Your task to perform on an android device: Clear all items from cart on walmart.com. Add "energizer triple a" to the cart on walmart.com Image 0: 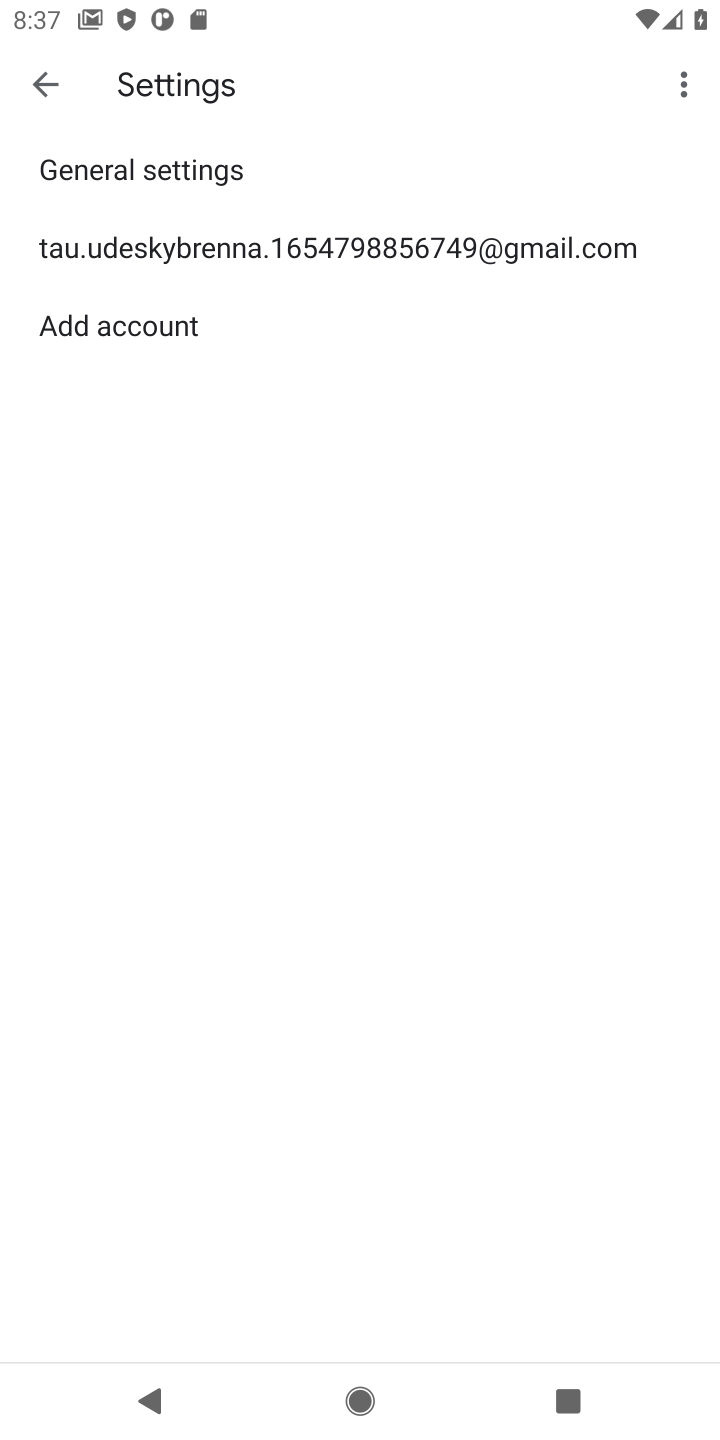
Step 0: press home button
Your task to perform on an android device: Clear all items from cart on walmart.com. Add "energizer triple a" to the cart on walmart.com Image 1: 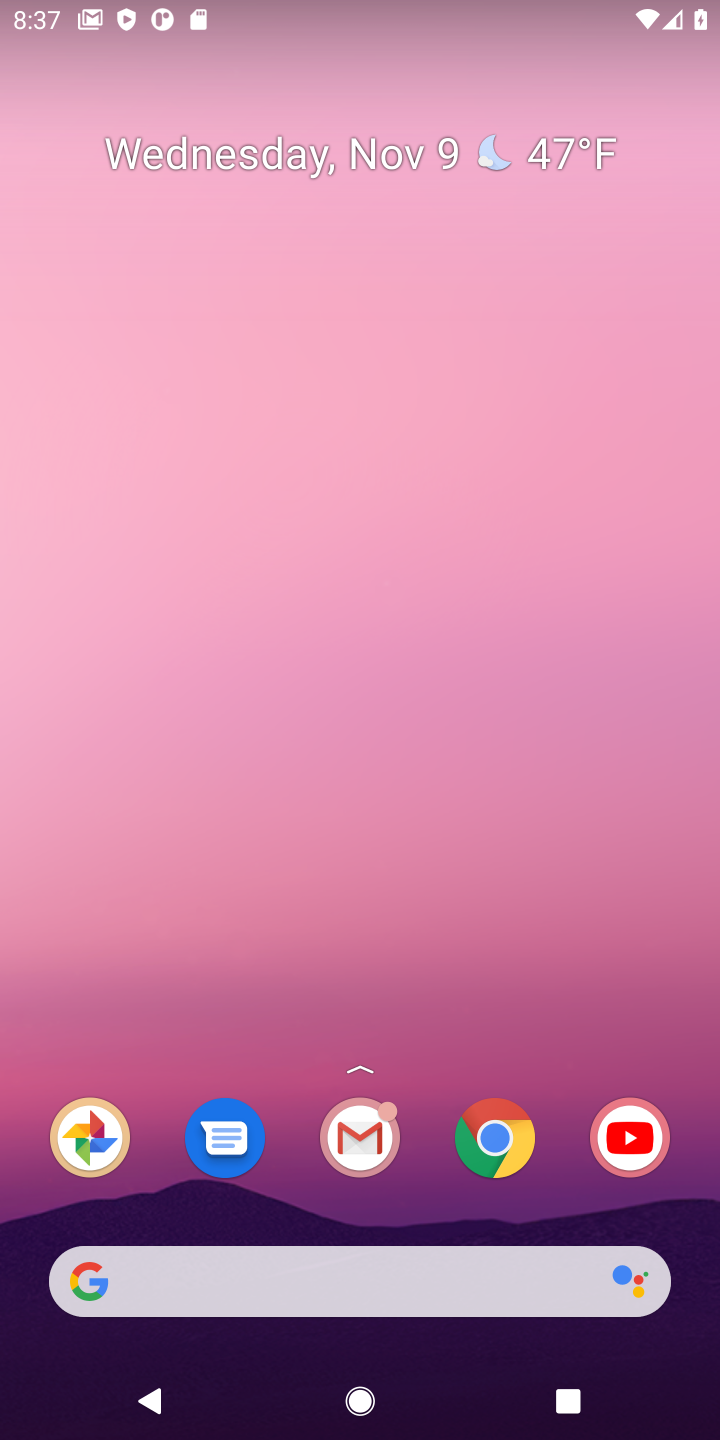
Step 1: drag from (412, 1095) to (407, 50)
Your task to perform on an android device: Clear all items from cart on walmart.com. Add "energizer triple a" to the cart on walmart.com Image 2: 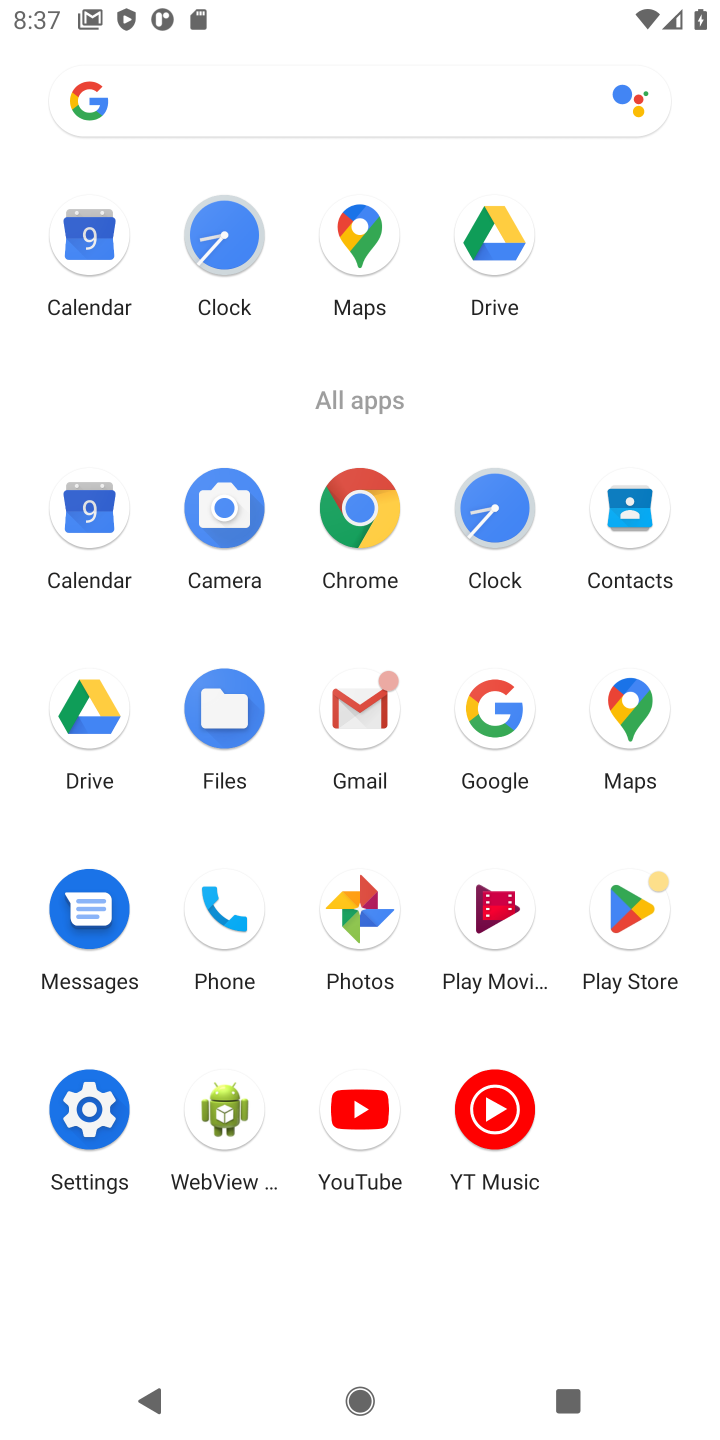
Step 2: click (351, 499)
Your task to perform on an android device: Clear all items from cart on walmart.com. Add "energizer triple a" to the cart on walmart.com Image 3: 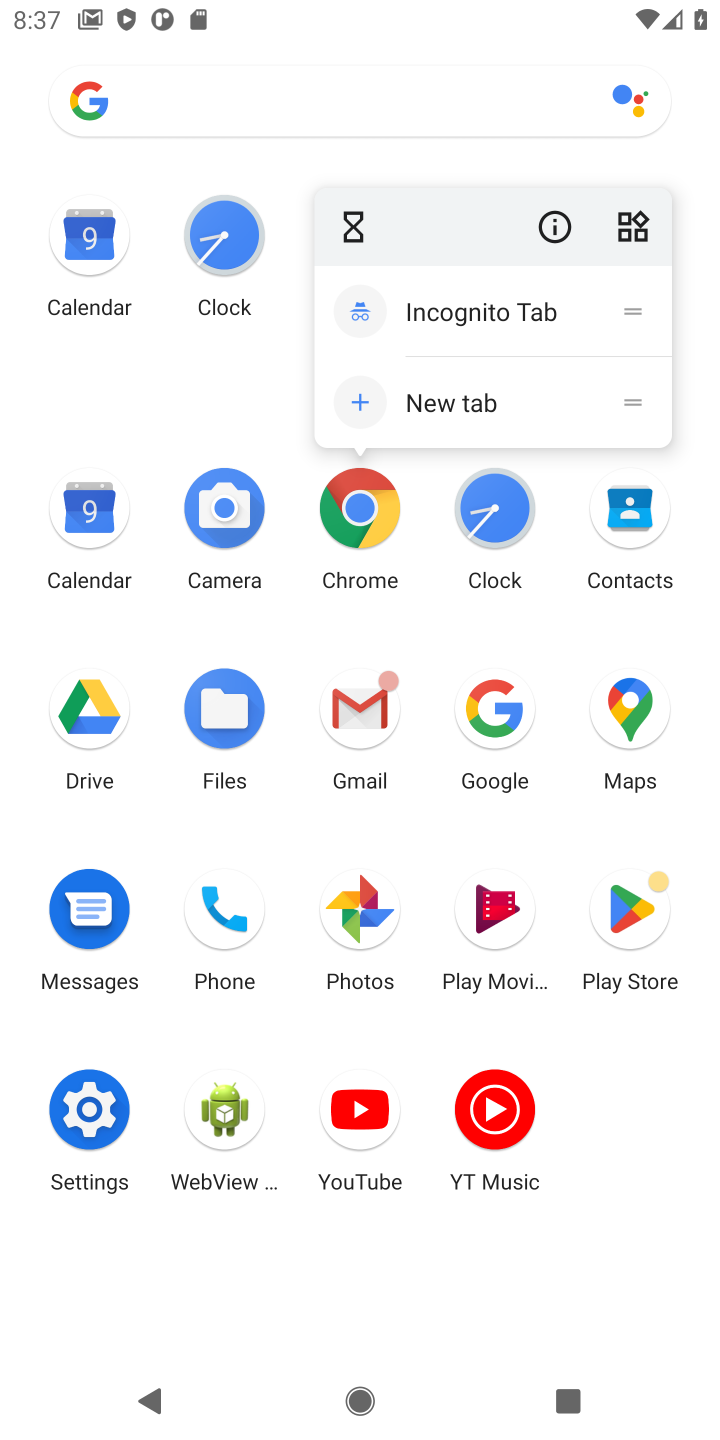
Step 3: click (367, 505)
Your task to perform on an android device: Clear all items from cart on walmart.com. Add "energizer triple a" to the cart on walmart.com Image 4: 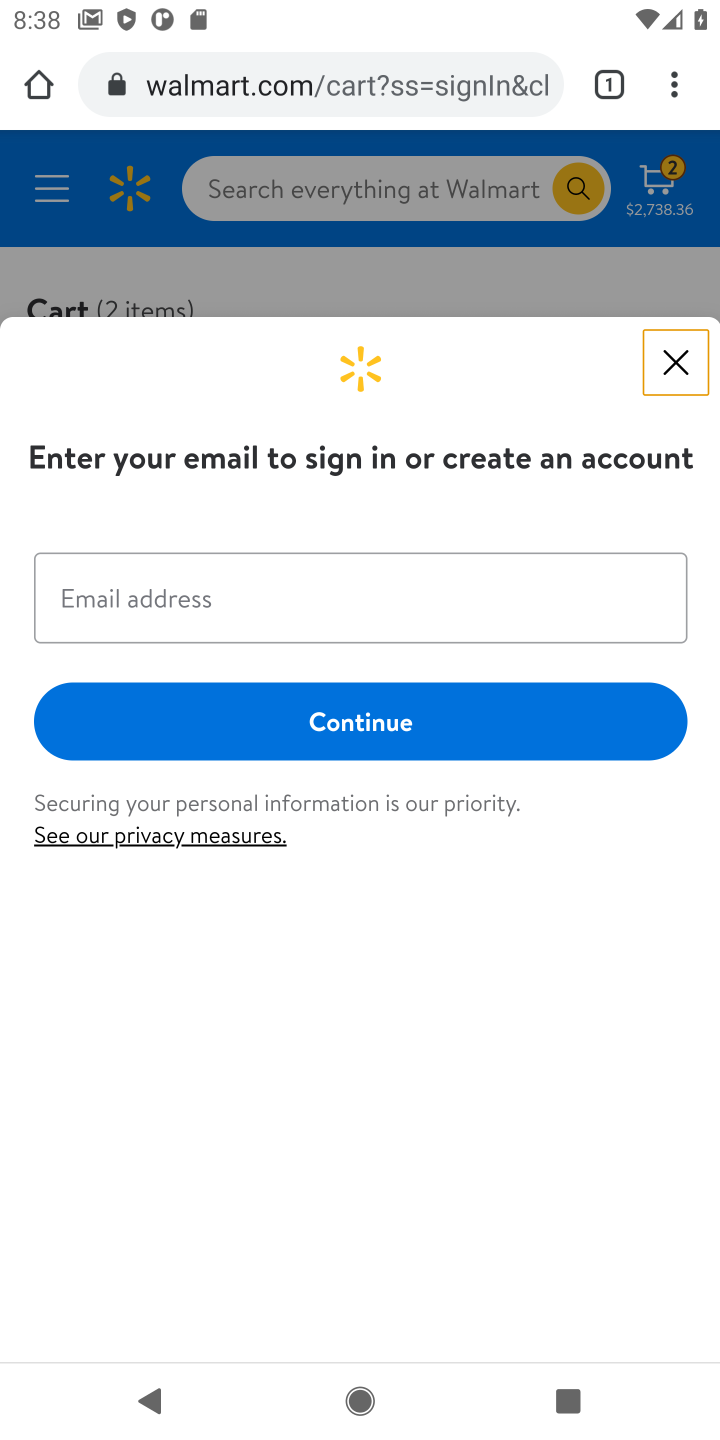
Step 4: click (284, 88)
Your task to perform on an android device: Clear all items from cart on walmart.com. Add "energizer triple a" to the cart on walmart.com Image 5: 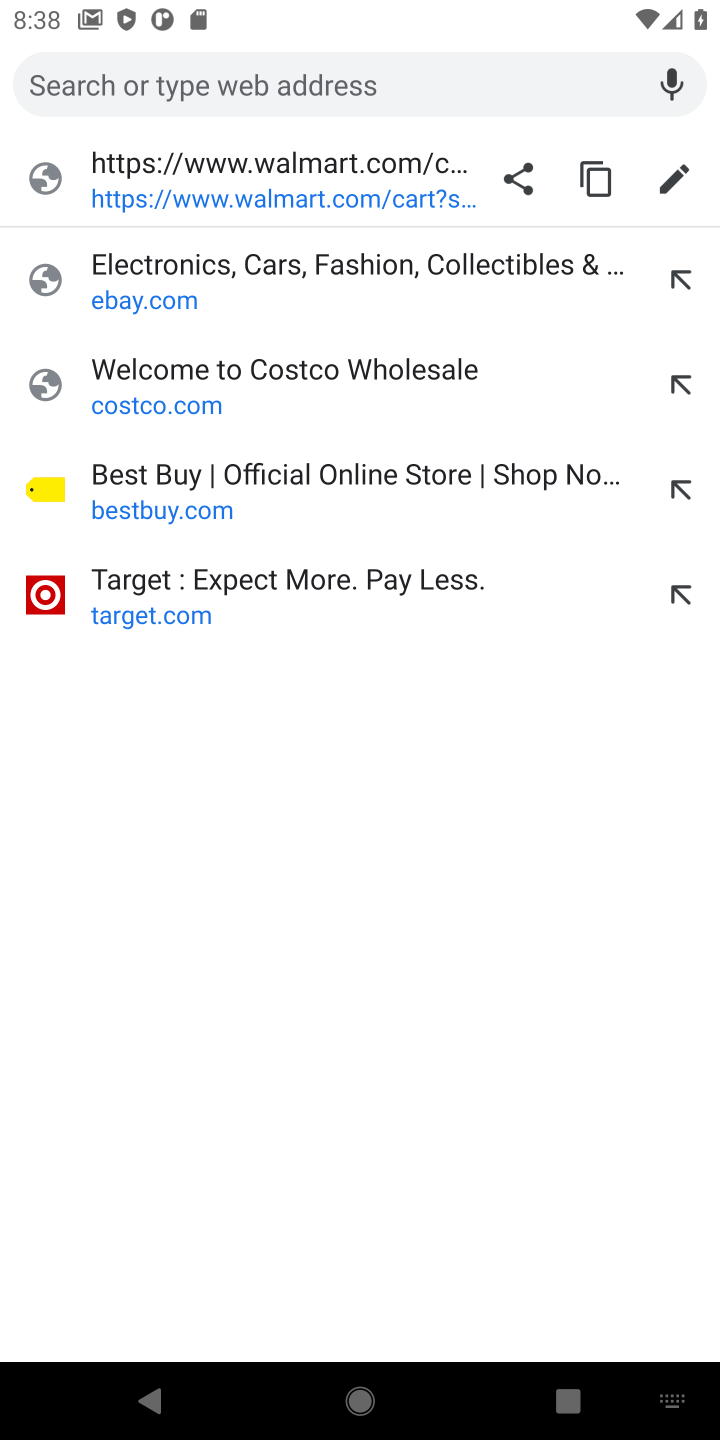
Step 5: type "walmart.com"
Your task to perform on an android device: Clear all items from cart on walmart.com. Add "energizer triple a" to the cart on walmart.com Image 6: 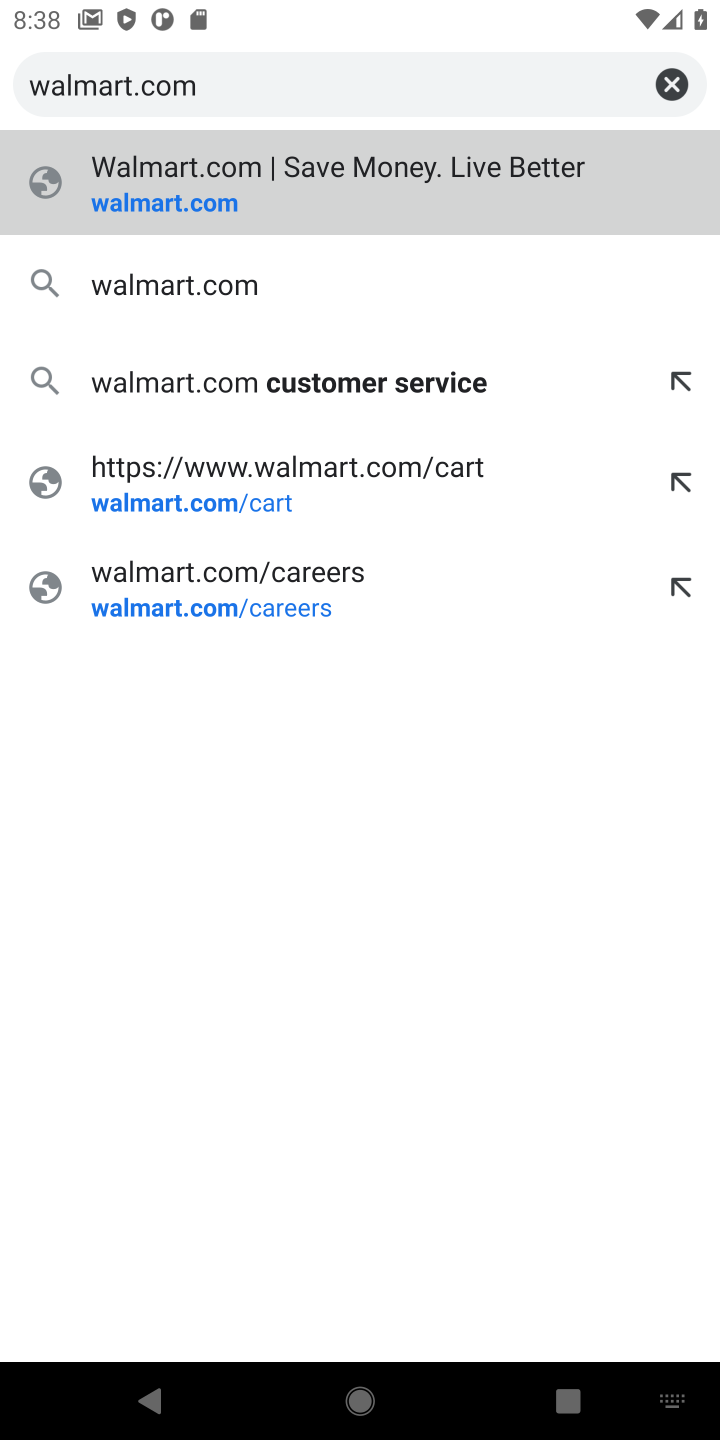
Step 6: press enter
Your task to perform on an android device: Clear all items from cart on walmart.com. Add "energizer triple a" to the cart on walmart.com Image 7: 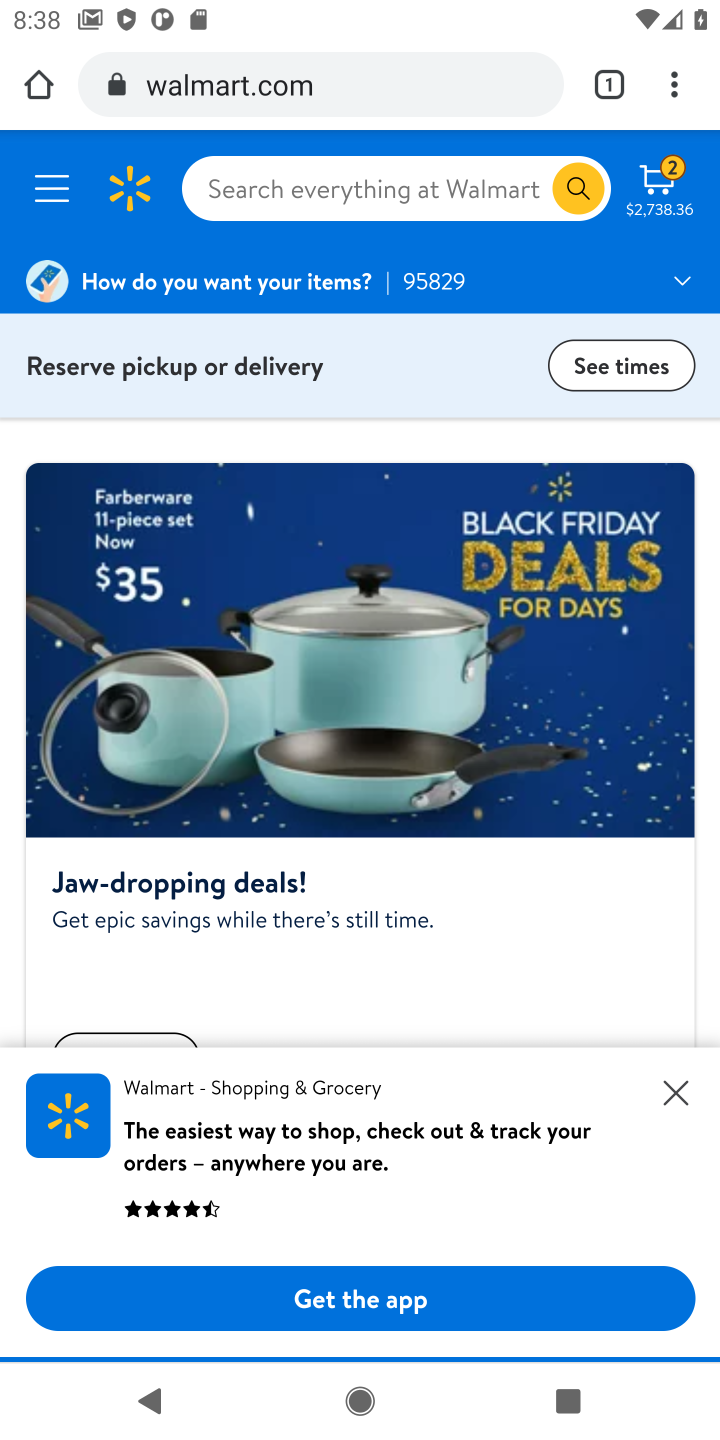
Step 7: click (673, 190)
Your task to perform on an android device: Clear all items from cart on walmart.com. Add "energizer triple a" to the cart on walmart.com Image 8: 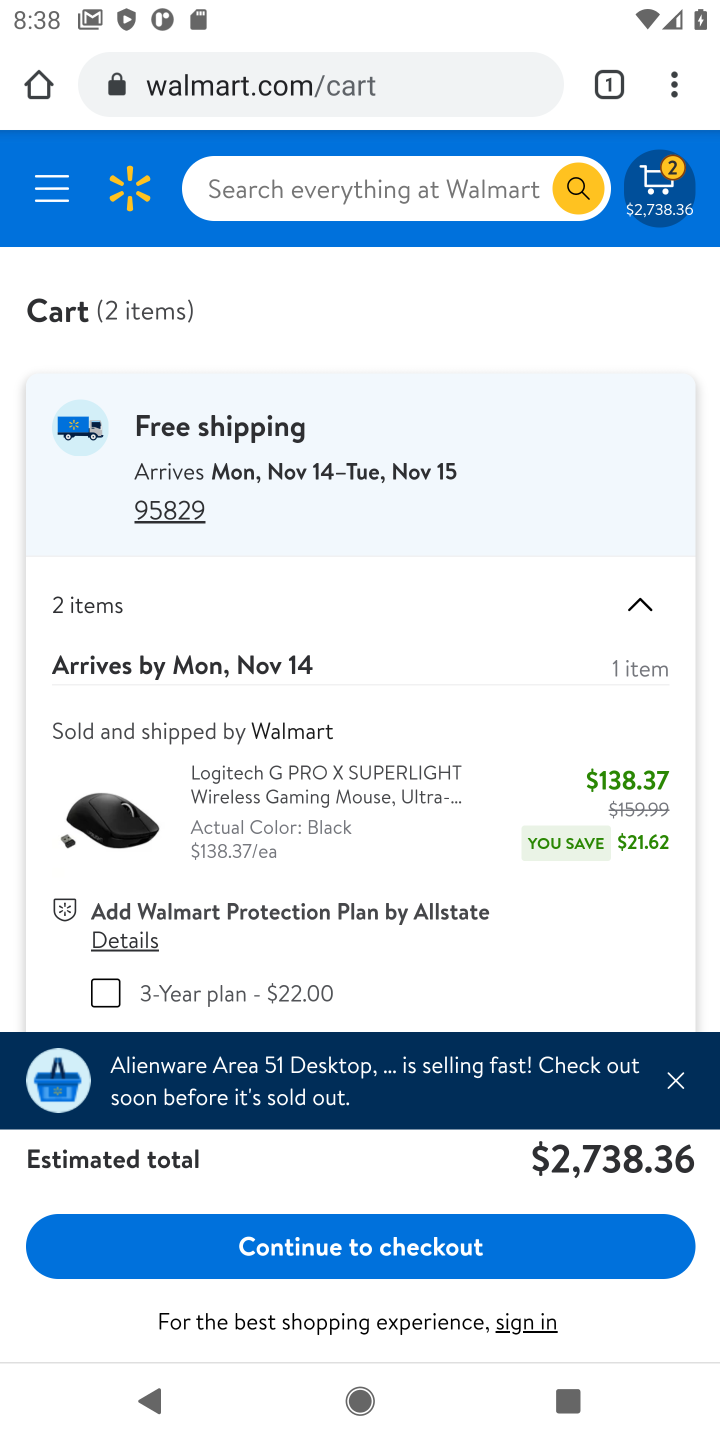
Step 8: drag from (256, 963) to (283, 473)
Your task to perform on an android device: Clear all items from cart on walmart.com. Add "energizer triple a" to the cart on walmart.com Image 9: 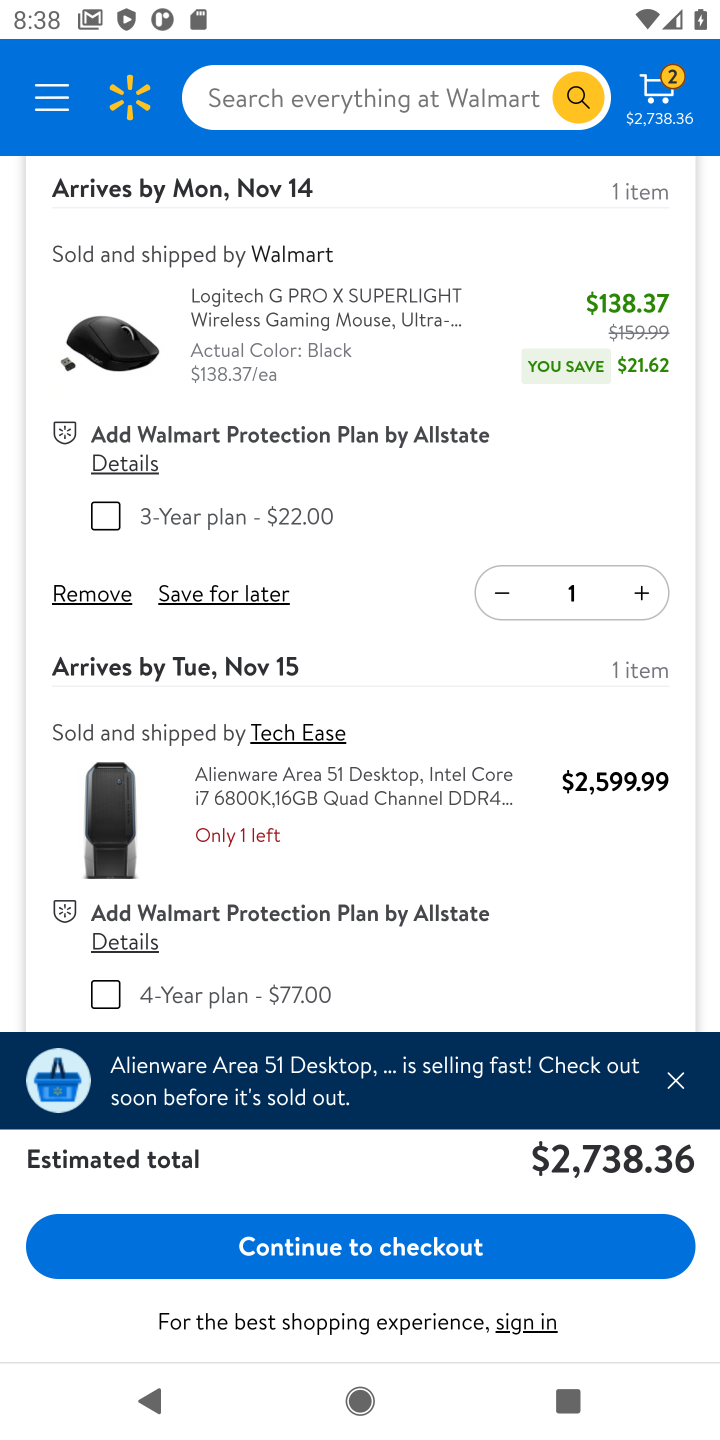
Step 9: click (113, 594)
Your task to perform on an android device: Clear all items from cart on walmart.com. Add "energizer triple a" to the cart on walmart.com Image 10: 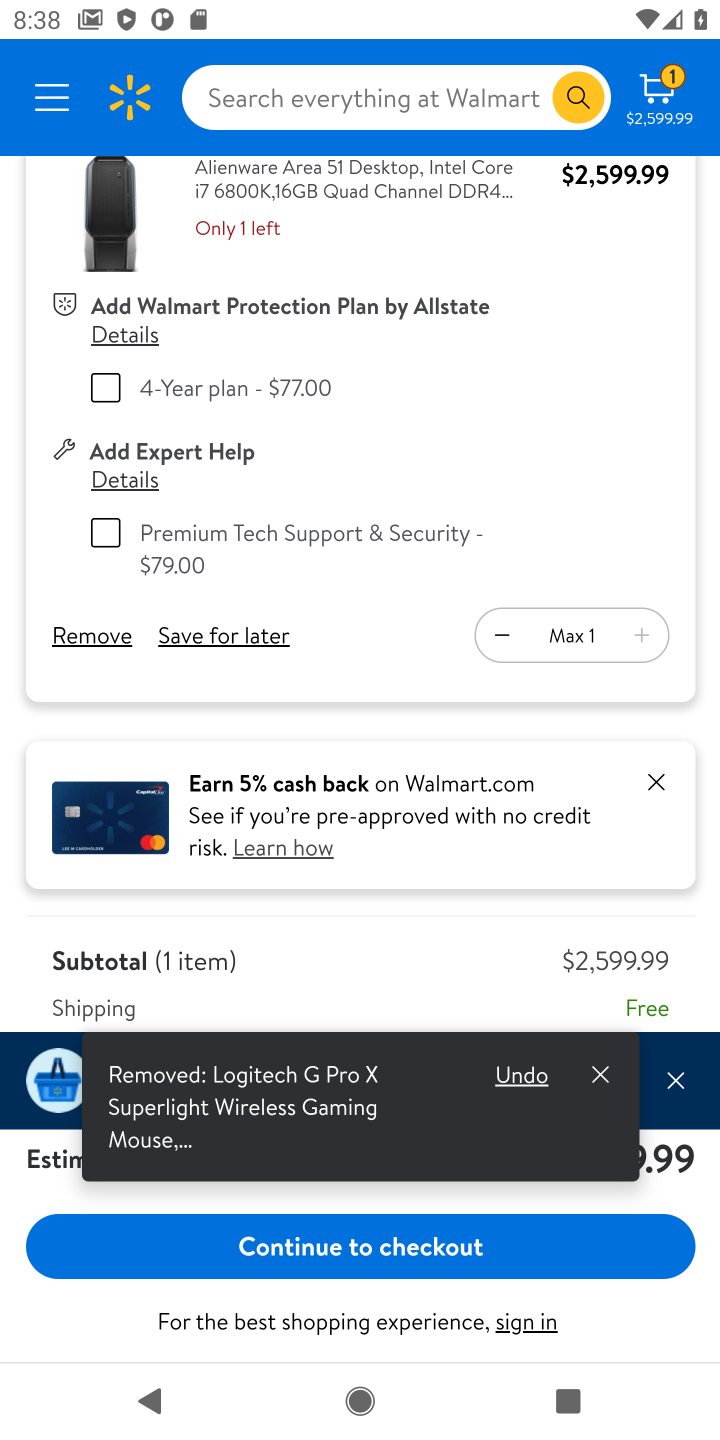
Step 10: click (98, 628)
Your task to perform on an android device: Clear all items from cart on walmart.com. Add "energizer triple a" to the cart on walmart.com Image 11: 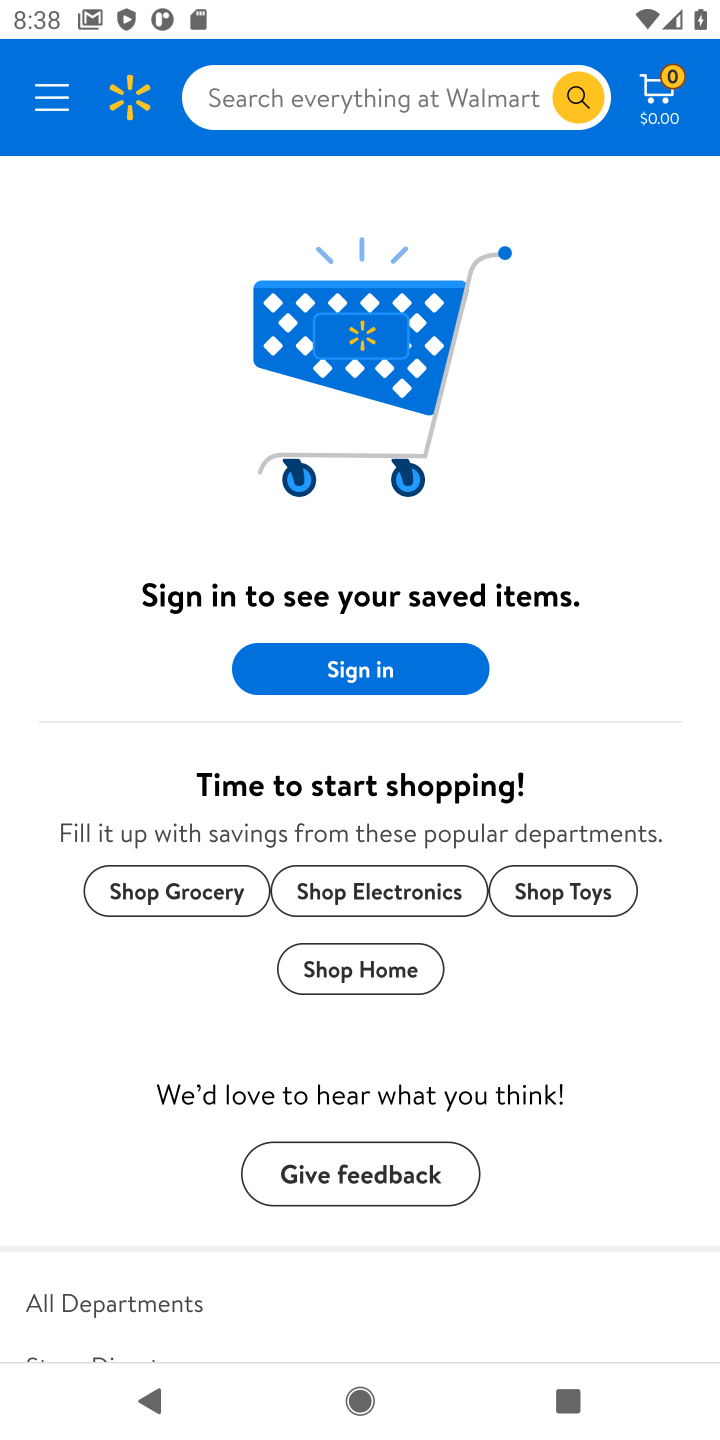
Step 11: click (387, 75)
Your task to perform on an android device: Clear all items from cart on walmart.com. Add "energizer triple a" to the cart on walmart.com Image 12: 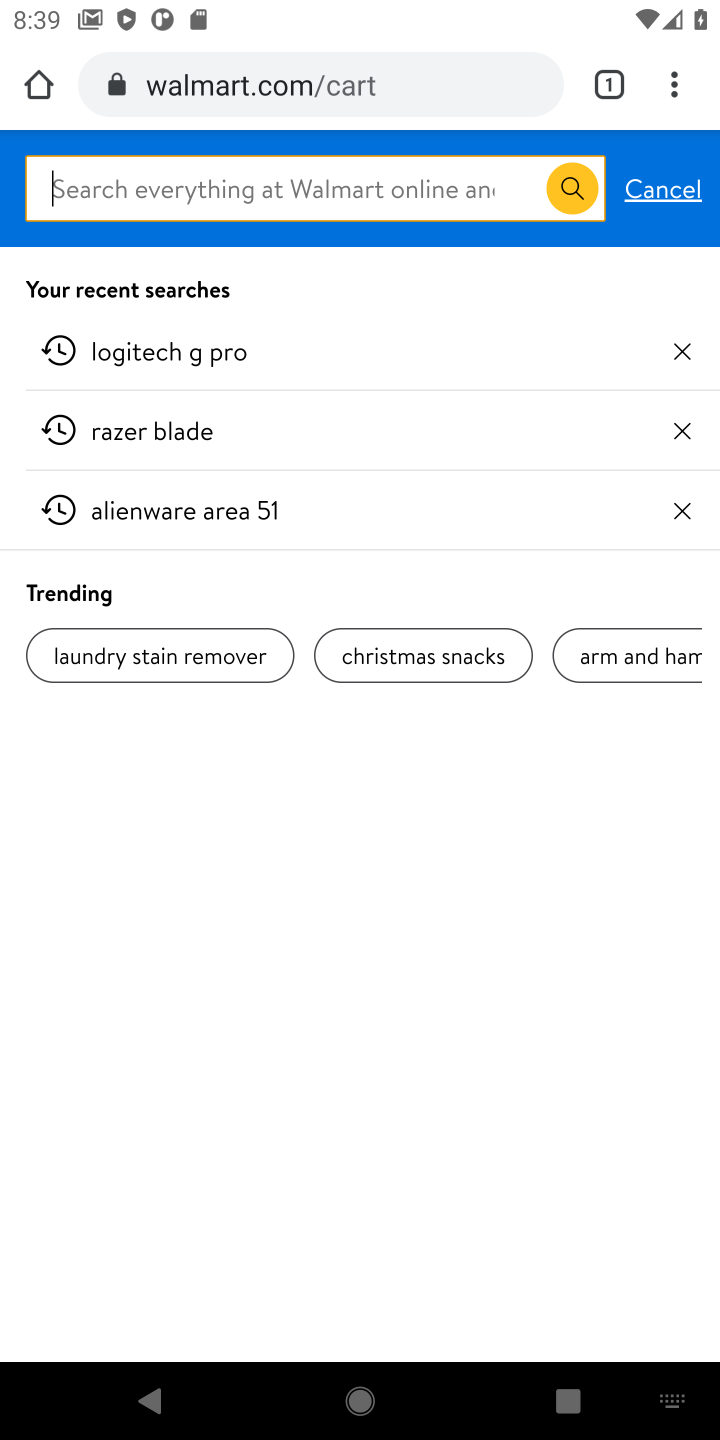
Step 12: type "energizer triple a"
Your task to perform on an android device: Clear all items from cart on walmart.com. Add "energizer triple a" to the cart on walmart.com Image 13: 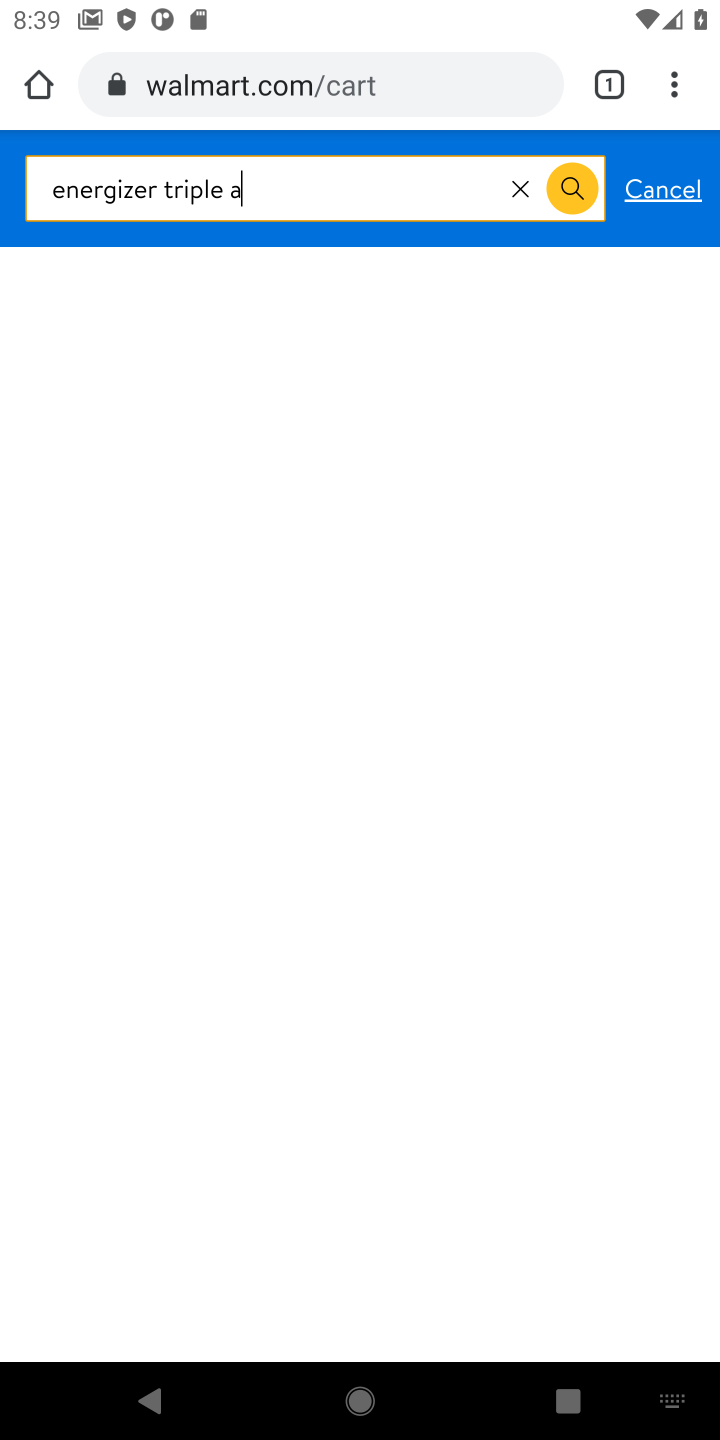
Step 13: press enter
Your task to perform on an android device: Clear all items from cart on walmart.com. Add "energizer triple a" to the cart on walmart.com Image 14: 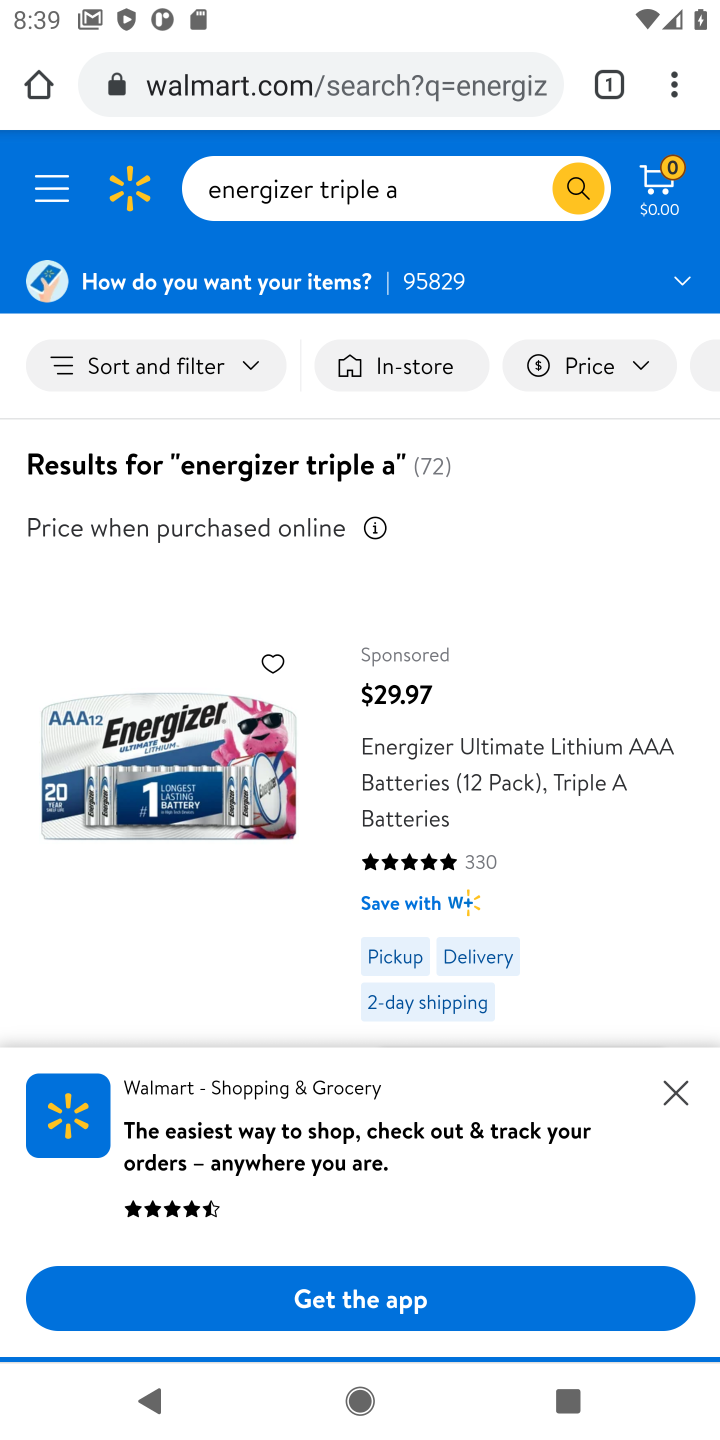
Step 14: drag from (344, 784) to (301, 120)
Your task to perform on an android device: Clear all items from cart on walmart.com. Add "energizer triple a" to the cart on walmart.com Image 15: 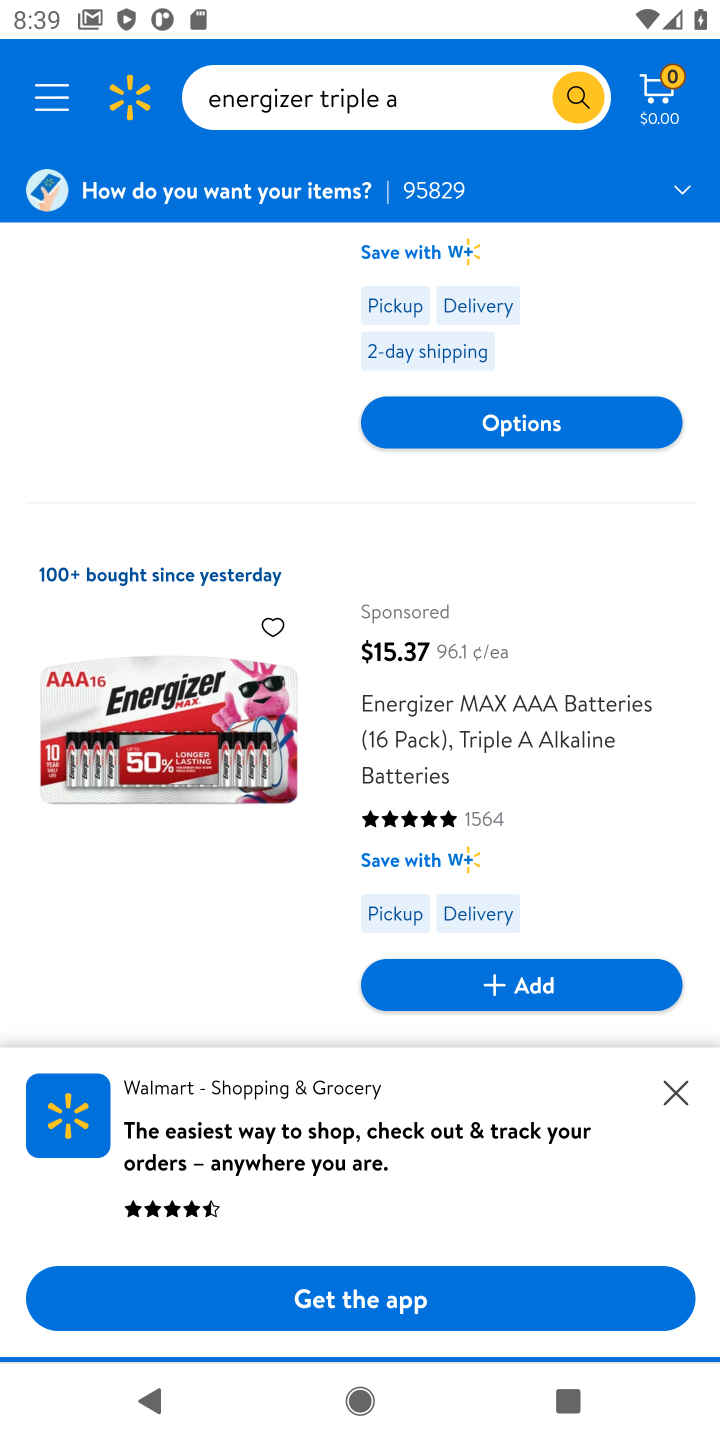
Step 15: drag from (294, 948) to (399, 217)
Your task to perform on an android device: Clear all items from cart on walmart.com. Add "energizer triple a" to the cart on walmart.com Image 16: 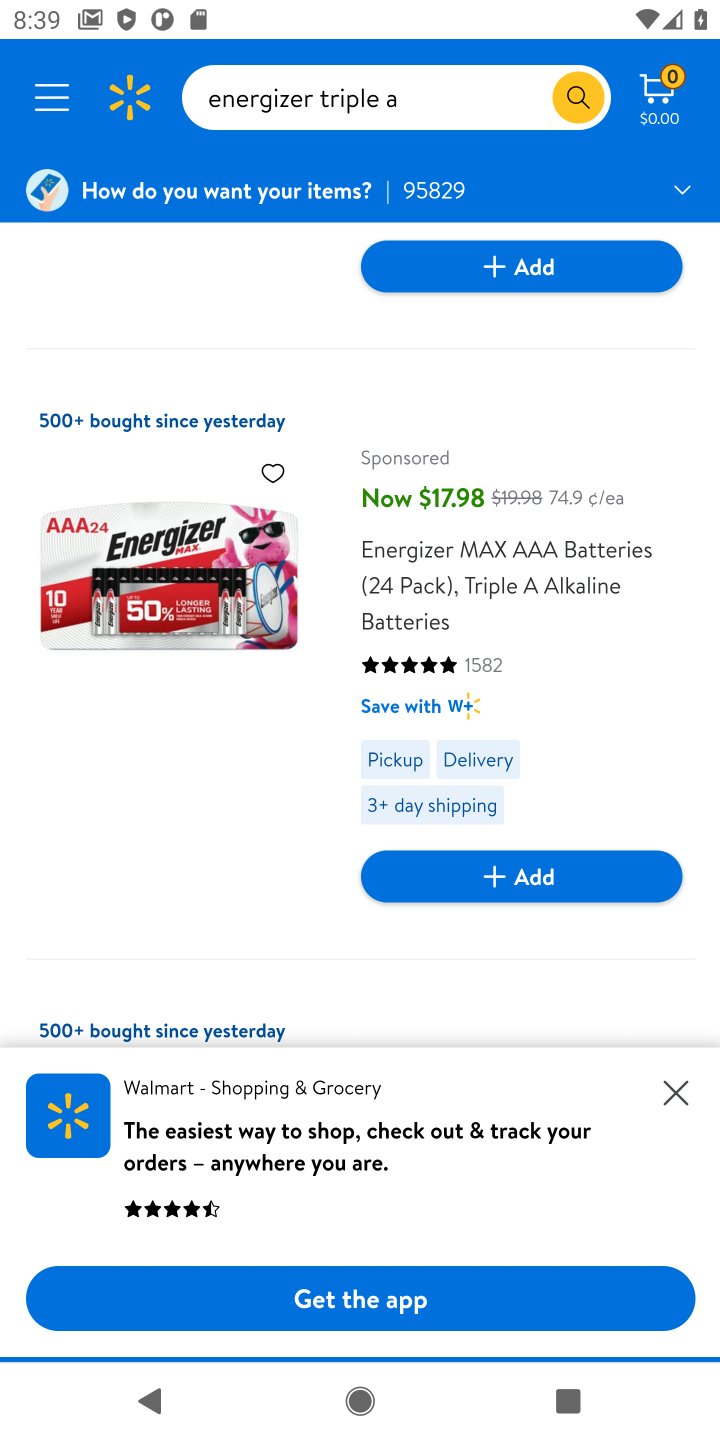
Step 16: click (576, 874)
Your task to perform on an android device: Clear all items from cart on walmart.com. Add "energizer triple a" to the cart on walmart.com Image 17: 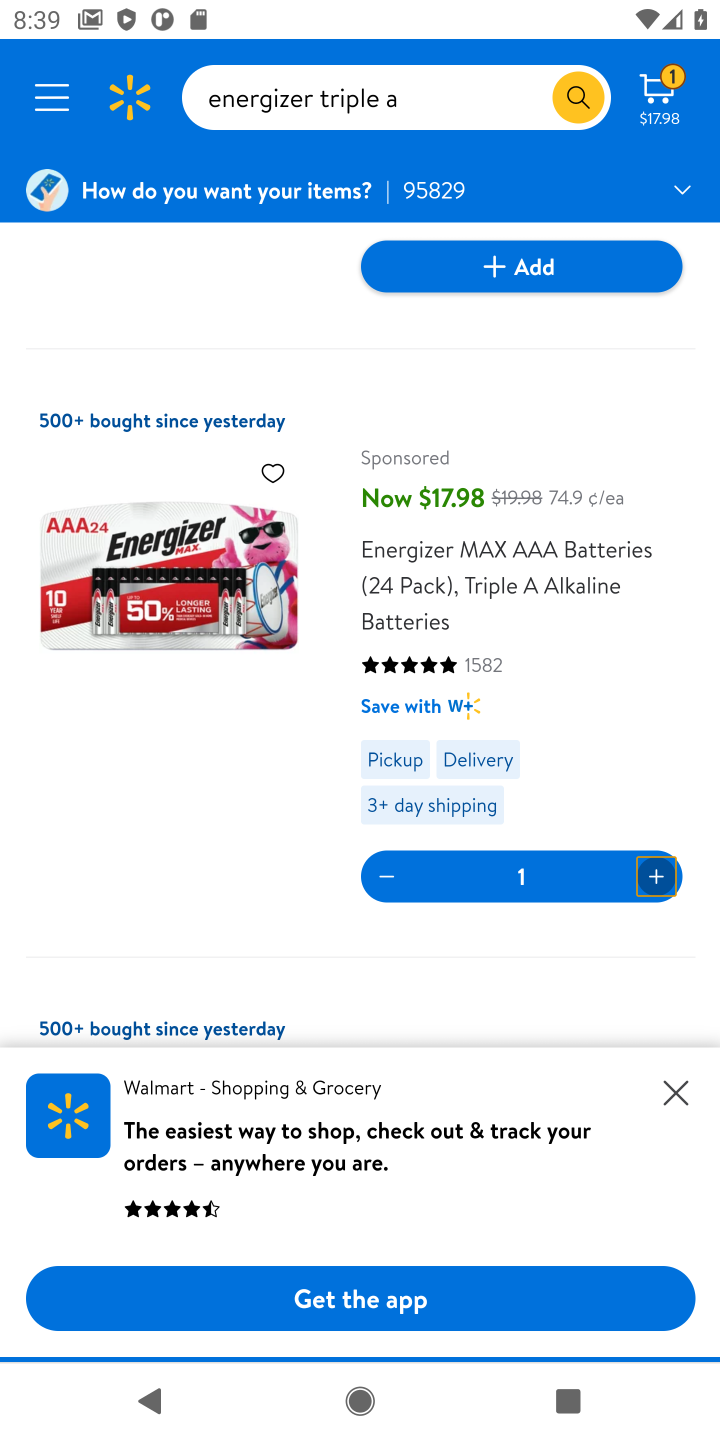
Step 17: click (381, 856)
Your task to perform on an android device: Clear all items from cart on walmart.com. Add "energizer triple a" to the cart on walmart.com Image 18: 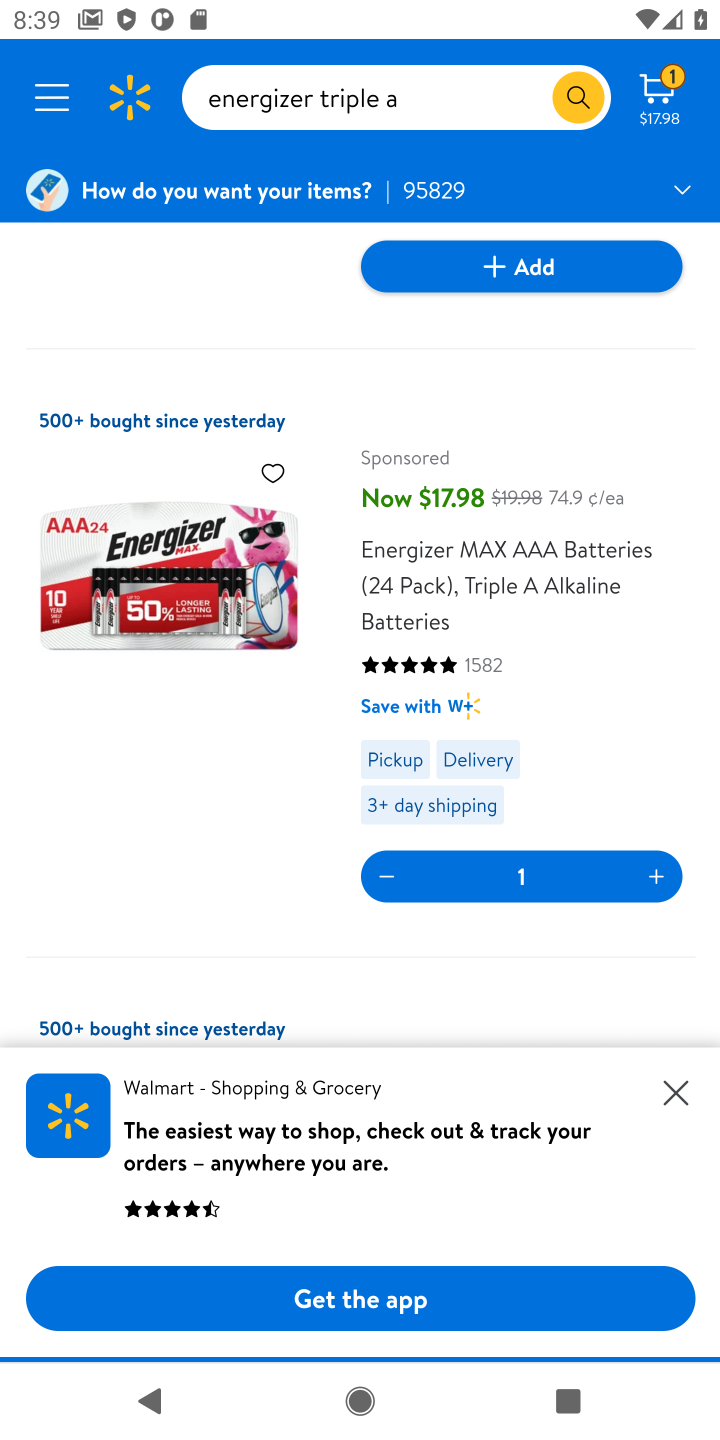
Step 18: drag from (319, 1022) to (134, 311)
Your task to perform on an android device: Clear all items from cart on walmart.com. Add "energizer triple a" to the cart on walmart.com Image 19: 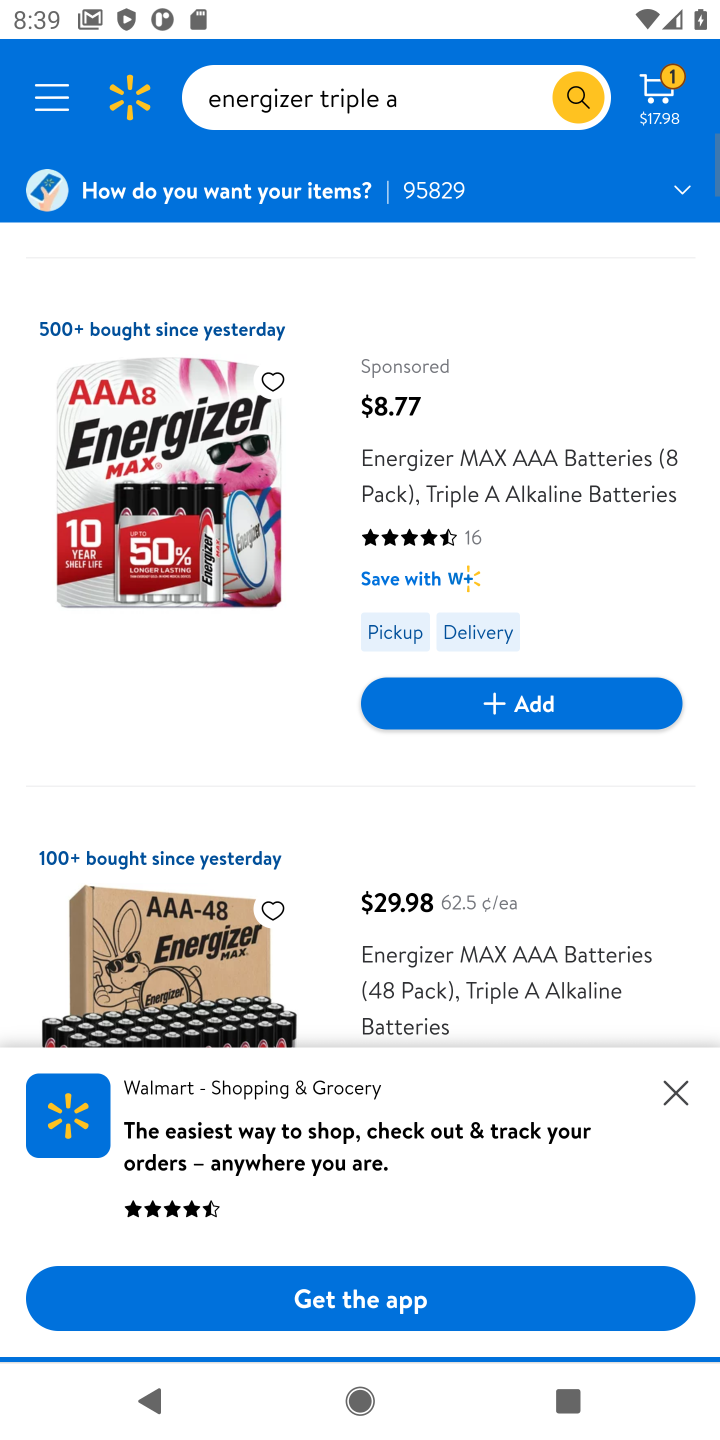
Step 19: drag from (221, 946) to (318, 373)
Your task to perform on an android device: Clear all items from cart on walmart.com. Add "energizer triple a" to the cart on walmart.com Image 20: 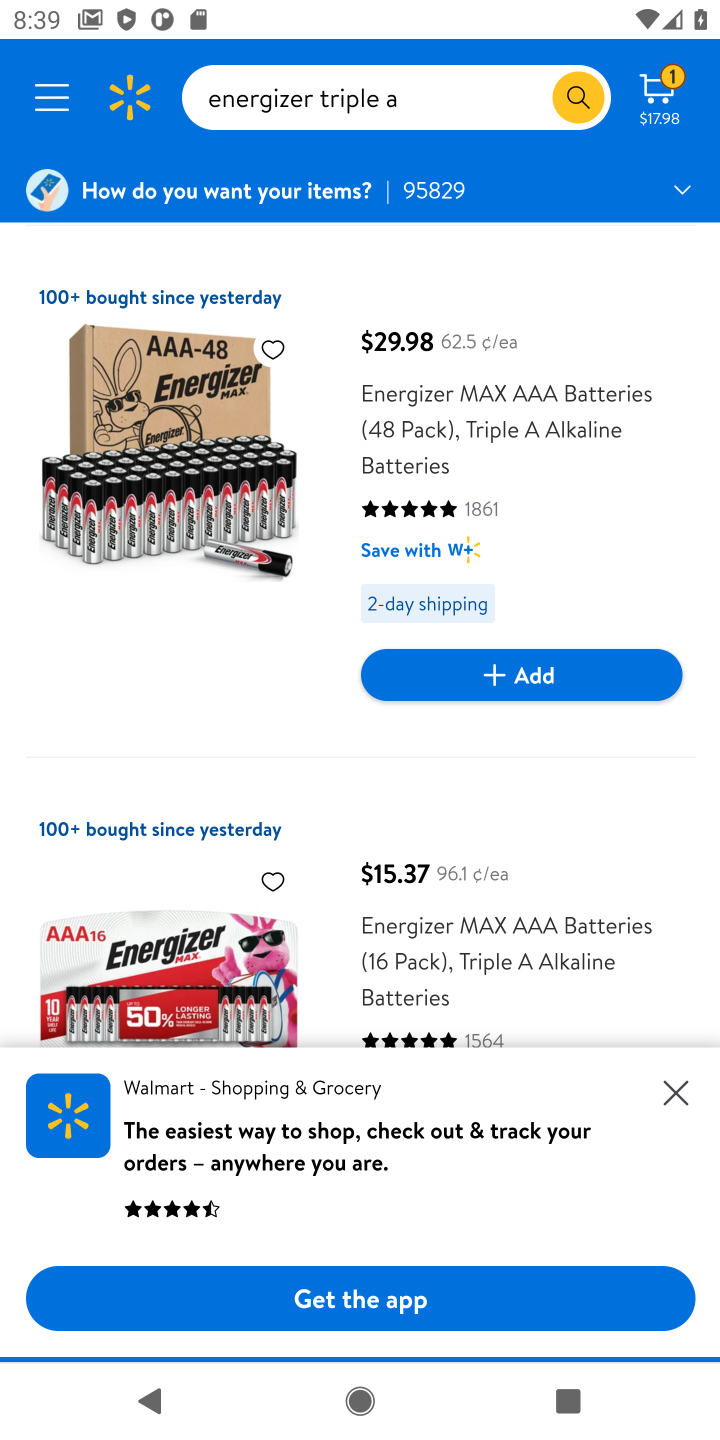
Step 20: click (488, 679)
Your task to perform on an android device: Clear all items from cart on walmart.com. Add "energizer triple a" to the cart on walmart.com Image 21: 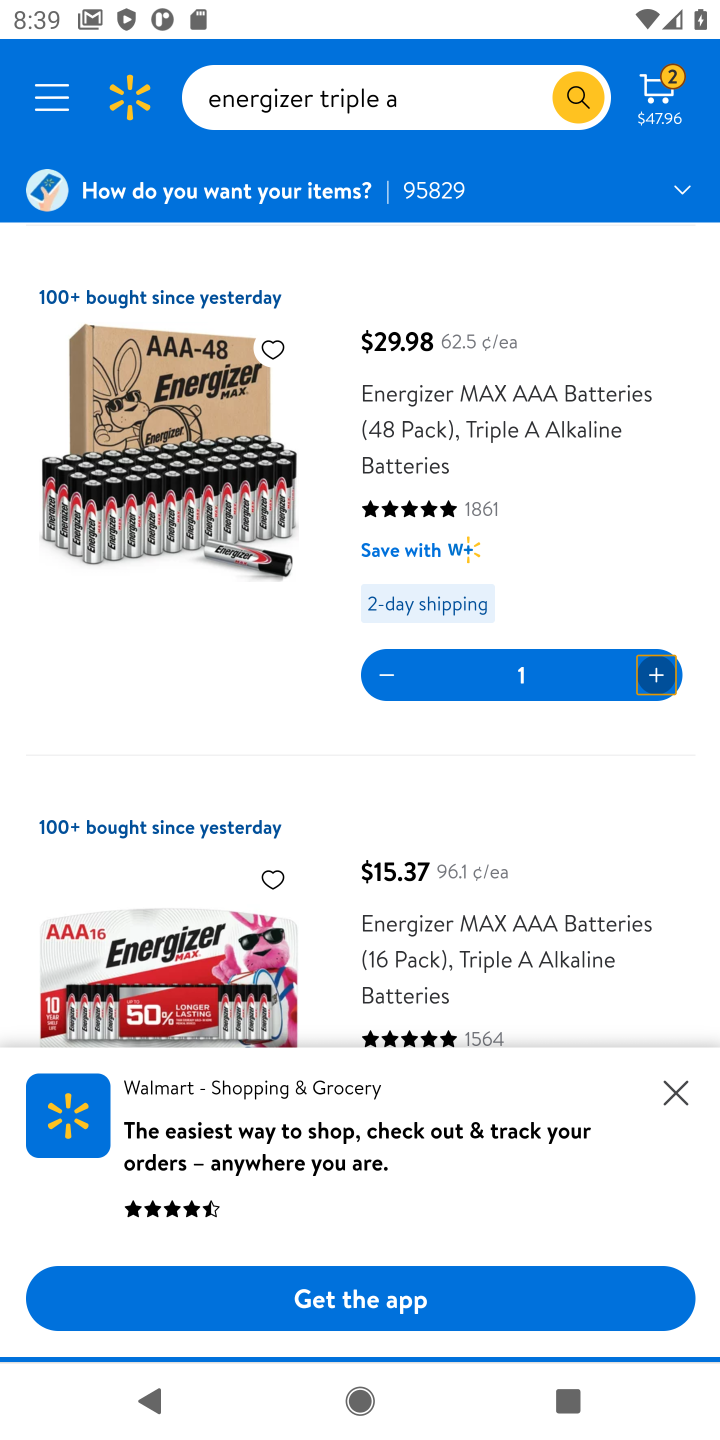
Step 21: click (684, 85)
Your task to perform on an android device: Clear all items from cart on walmart.com. Add "energizer triple a" to the cart on walmart.com Image 22: 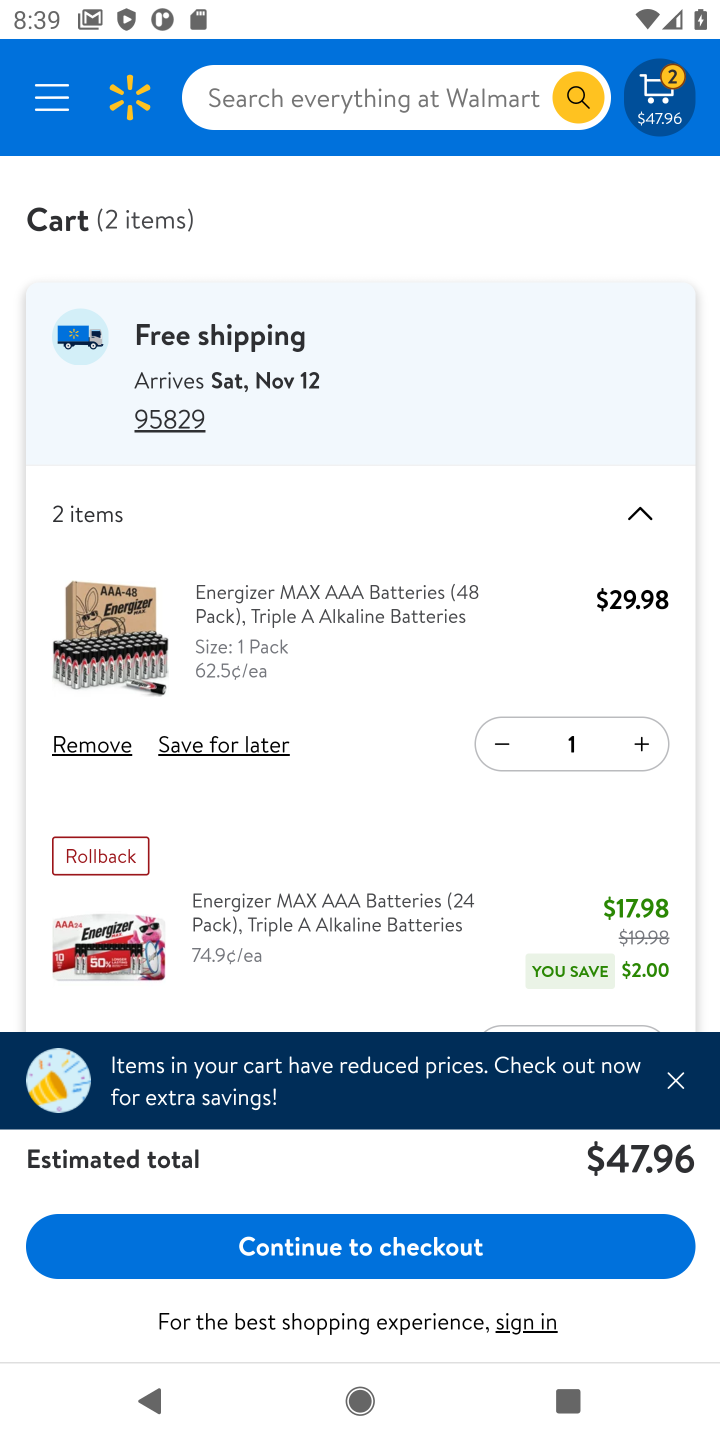
Step 22: click (376, 1252)
Your task to perform on an android device: Clear all items from cart on walmart.com. Add "energizer triple a" to the cart on walmart.com Image 23: 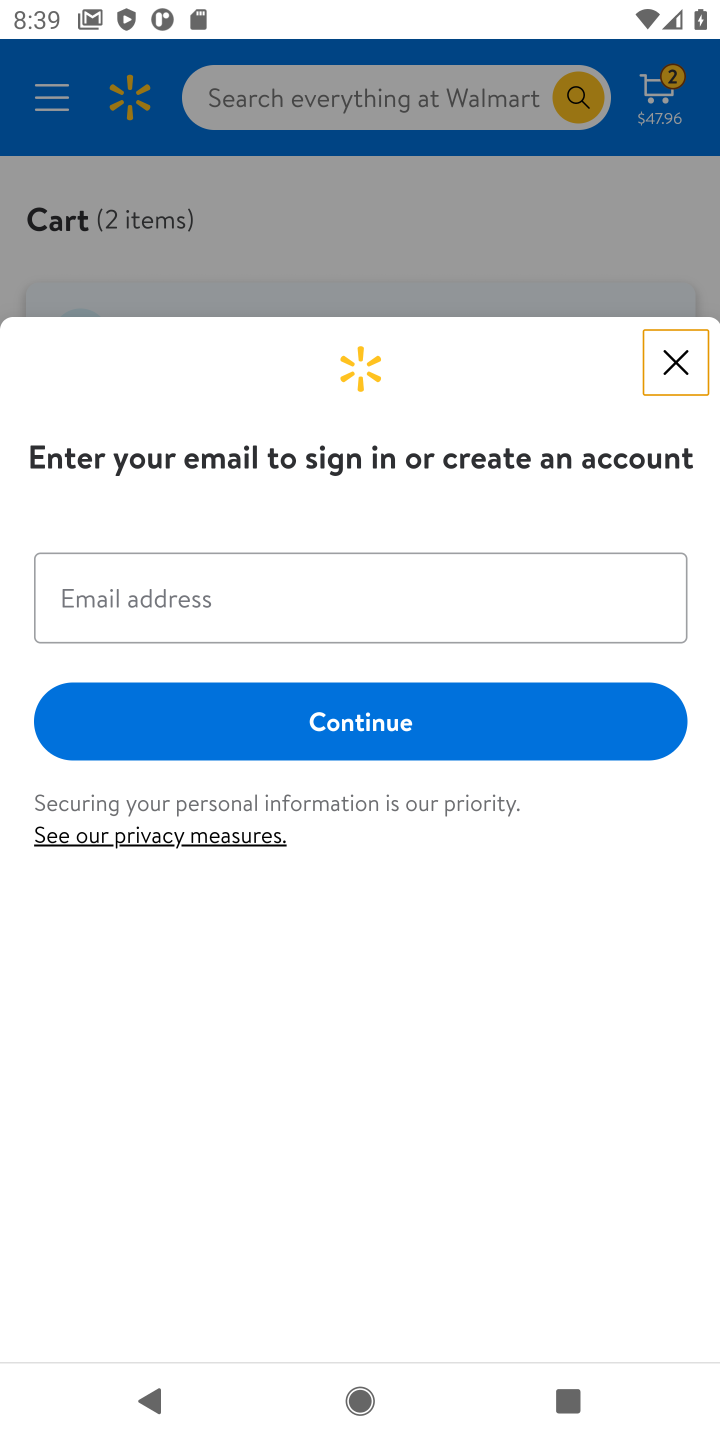
Step 23: task complete